Your task to perform on an android device: Go to Wikipedia Image 0: 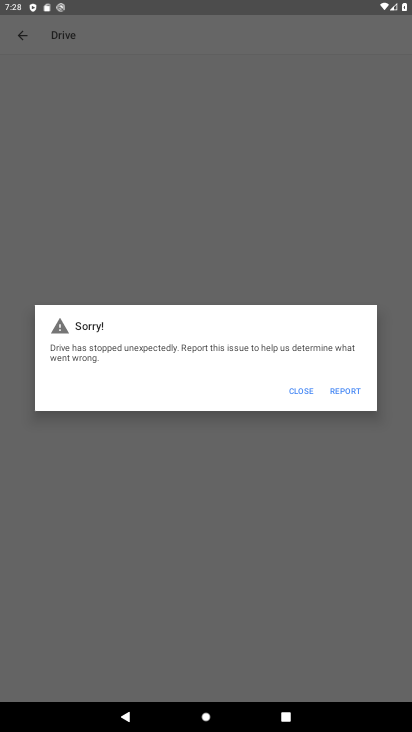
Step 0: press home button
Your task to perform on an android device: Go to Wikipedia Image 1: 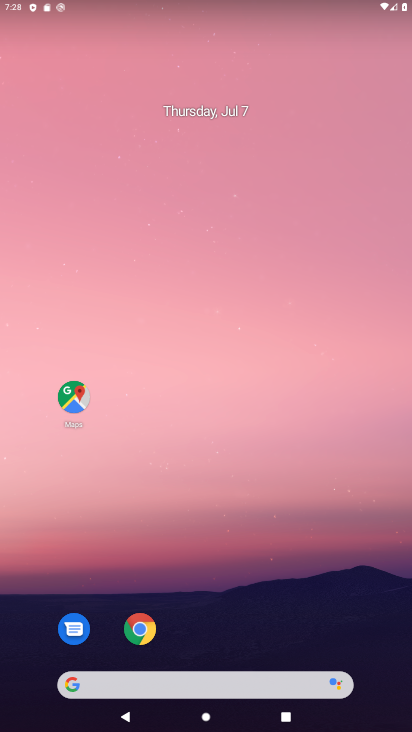
Step 1: drag from (338, 625) to (358, 90)
Your task to perform on an android device: Go to Wikipedia Image 2: 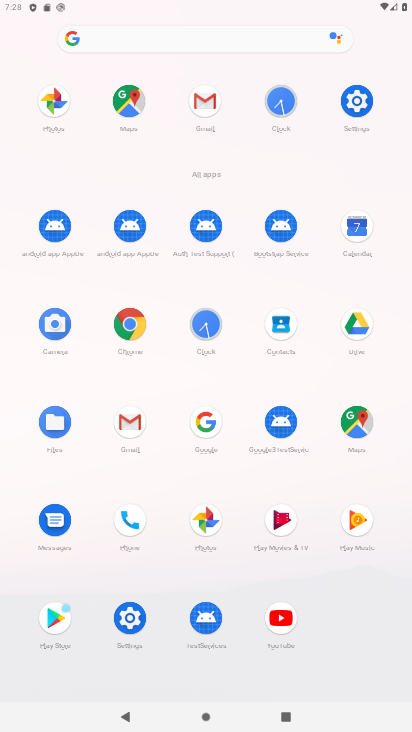
Step 2: click (122, 325)
Your task to perform on an android device: Go to Wikipedia Image 3: 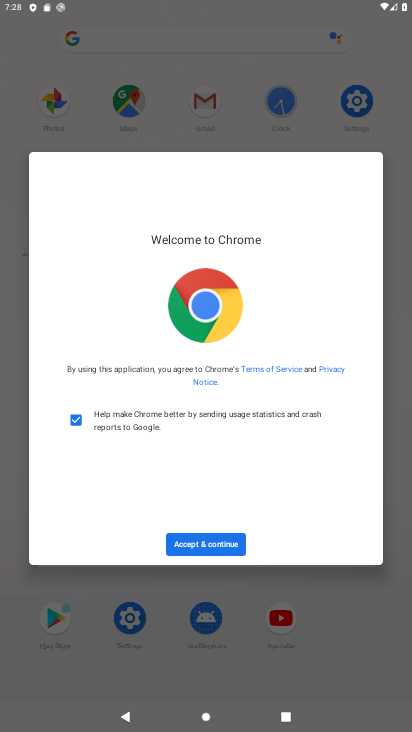
Step 3: click (240, 542)
Your task to perform on an android device: Go to Wikipedia Image 4: 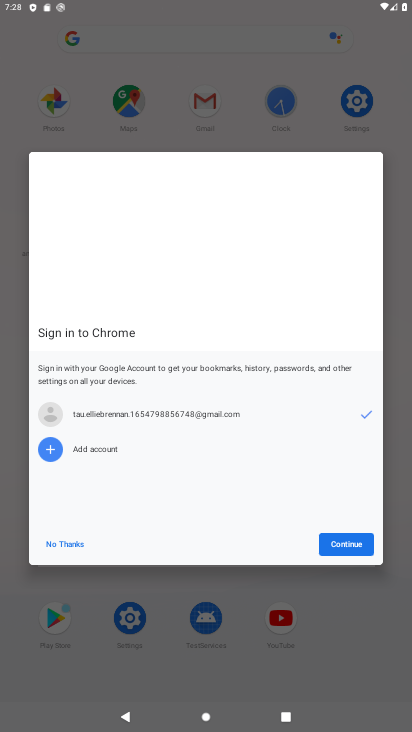
Step 4: click (342, 545)
Your task to perform on an android device: Go to Wikipedia Image 5: 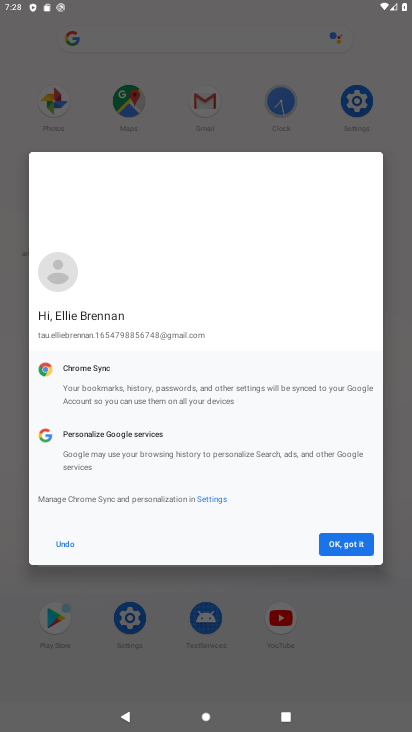
Step 5: click (347, 544)
Your task to perform on an android device: Go to Wikipedia Image 6: 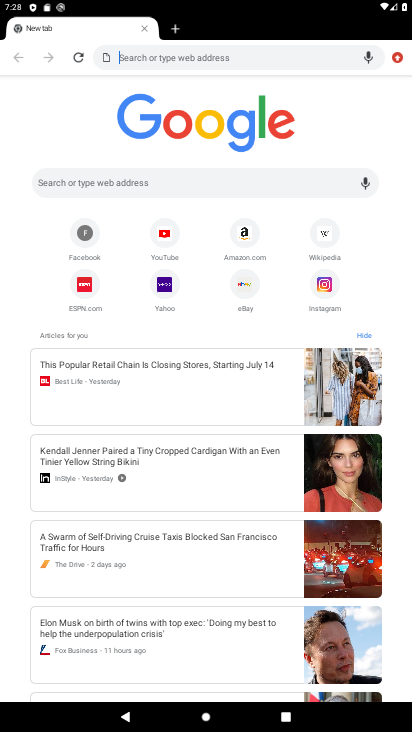
Step 6: click (328, 232)
Your task to perform on an android device: Go to Wikipedia Image 7: 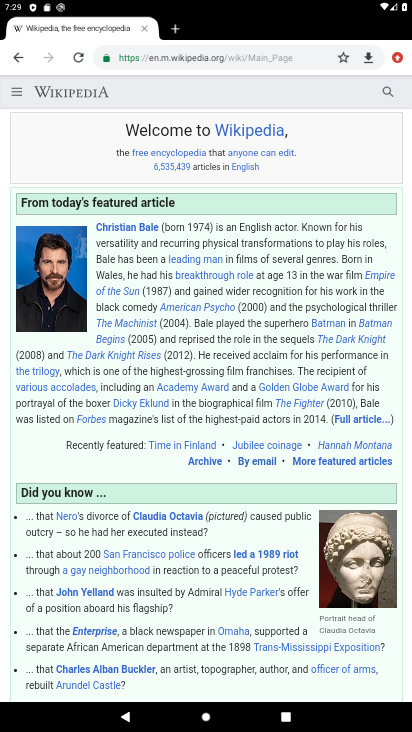
Step 7: task complete